Your task to perform on an android device: What's the weather today? Image 0: 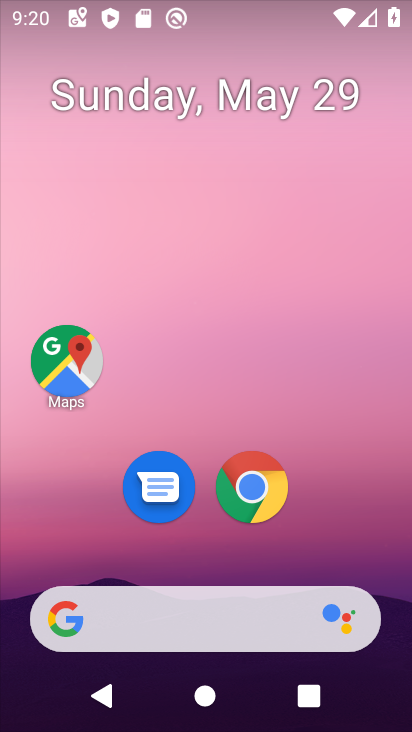
Step 0: click (210, 622)
Your task to perform on an android device: What's the weather today? Image 1: 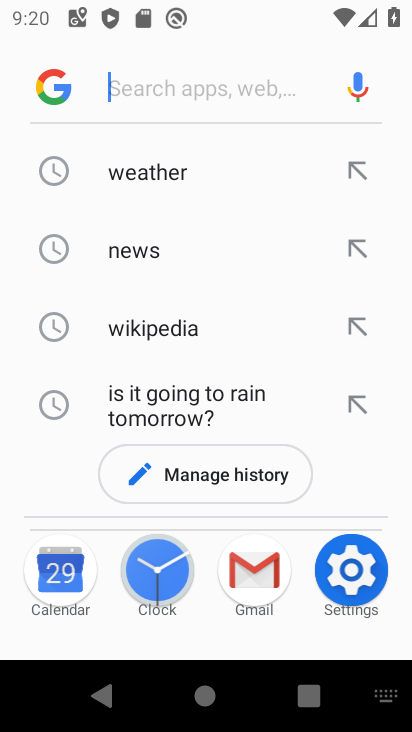
Step 1: click (195, 188)
Your task to perform on an android device: What's the weather today? Image 2: 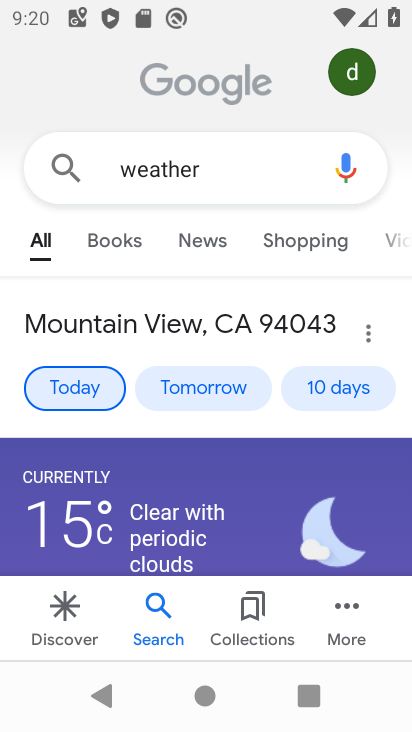
Step 2: task complete